Your task to perform on an android device: open chrome privacy settings Image 0: 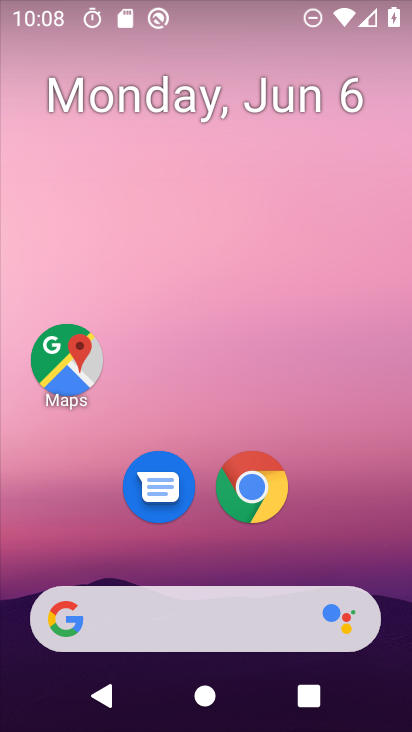
Step 0: drag from (400, 638) to (366, 59)
Your task to perform on an android device: open chrome privacy settings Image 1: 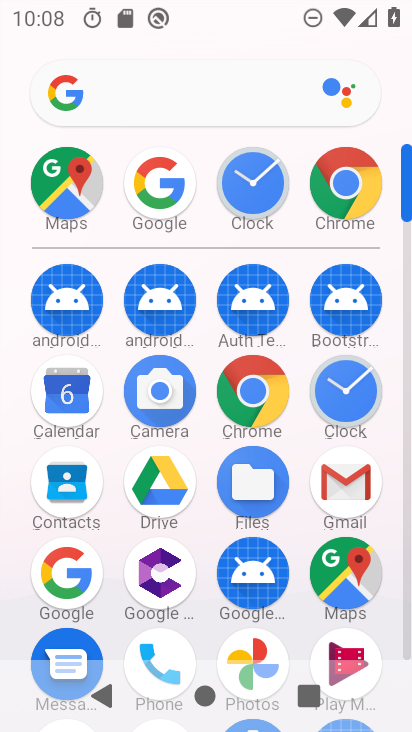
Step 1: click (243, 391)
Your task to perform on an android device: open chrome privacy settings Image 2: 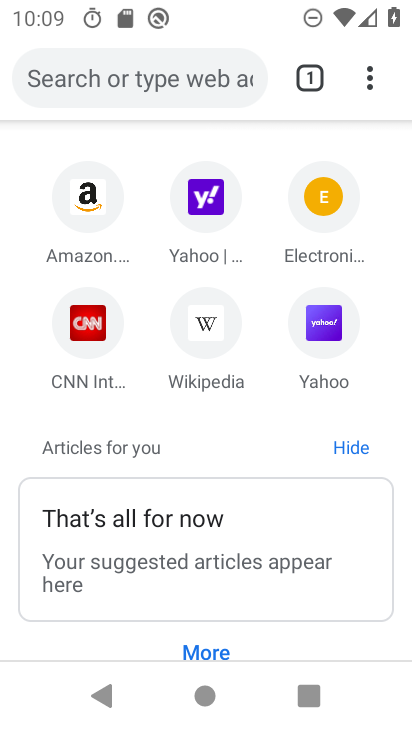
Step 2: click (372, 72)
Your task to perform on an android device: open chrome privacy settings Image 3: 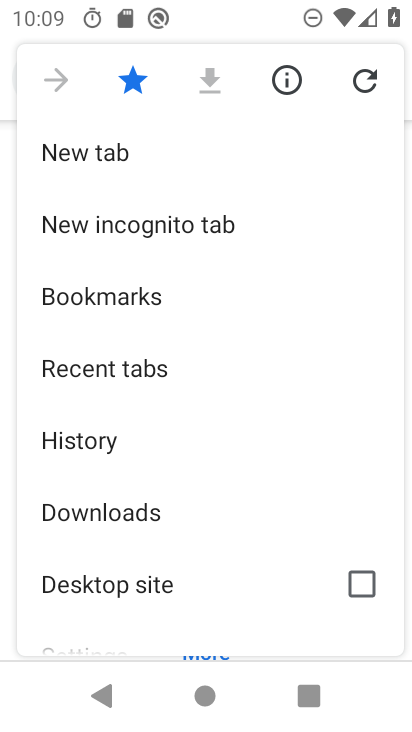
Step 3: drag from (173, 532) to (212, 94)
Your task to perform on an android device: open chrome privacy settings Image 4: 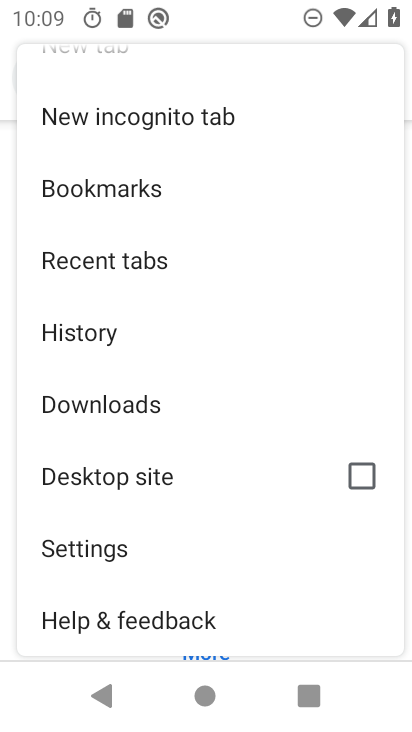
Step 4: click (105, 562)
Your task to perform on an android device: open chrome privacy settings Image 5: 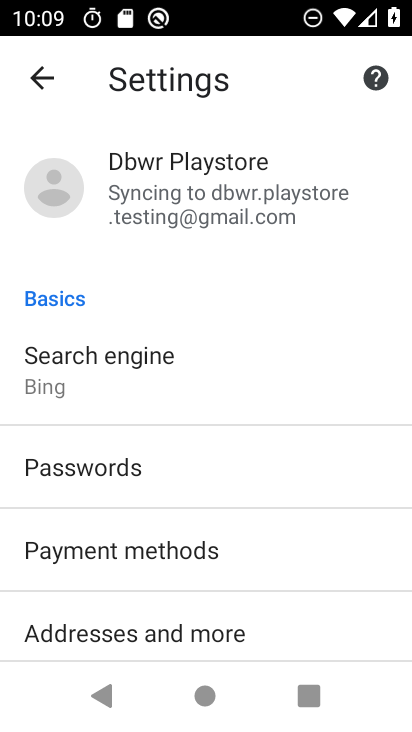
Step 5: drag from (169, 571) to (159, 248)
Your task to perform on an android device: open chrome privacy settings Image 6: 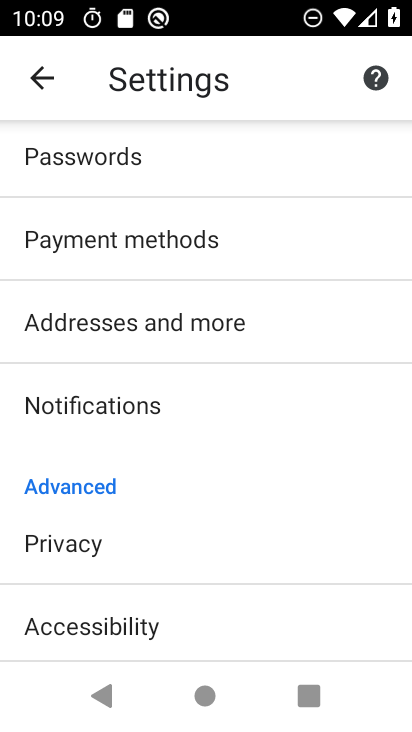
Step 6: click (84, 560)
Your task to perform on an android device: open chrome privacy settings Image 7: 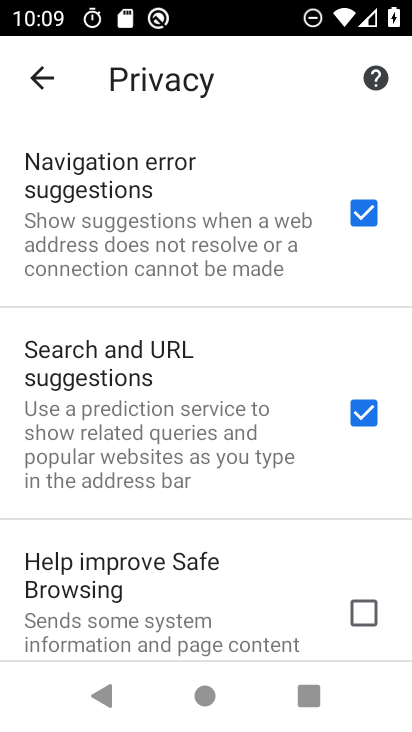
Step 7: task complete